Your task to perform on an android device: change text size in settings app Image 0: 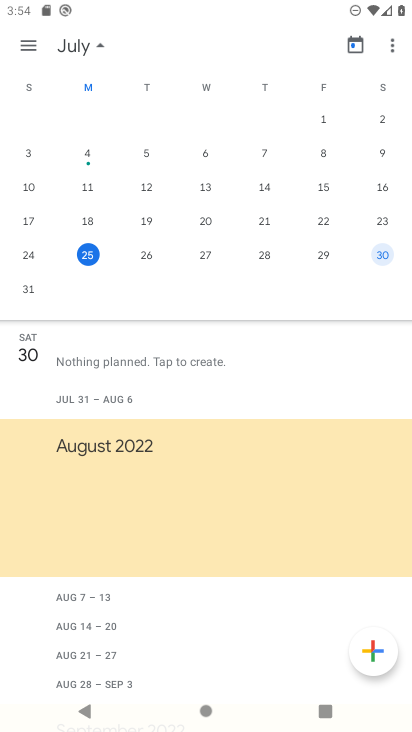
Step 0: press back button
Your task to perform on an android device: change text size in settings app Image 1: 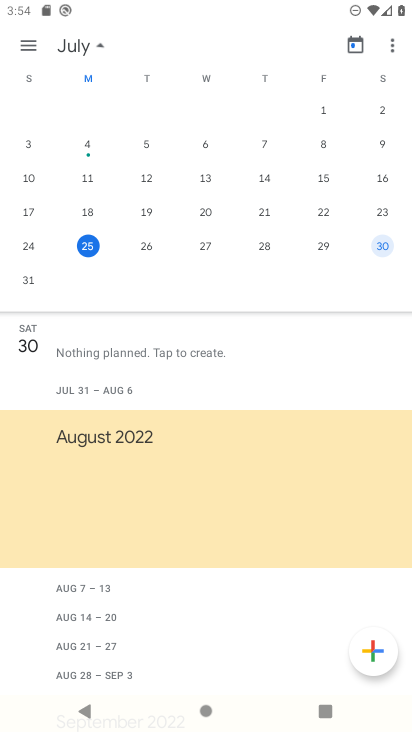
Step 1: press back button
Your task to perform on an android device: change text size in settings app Image 2: 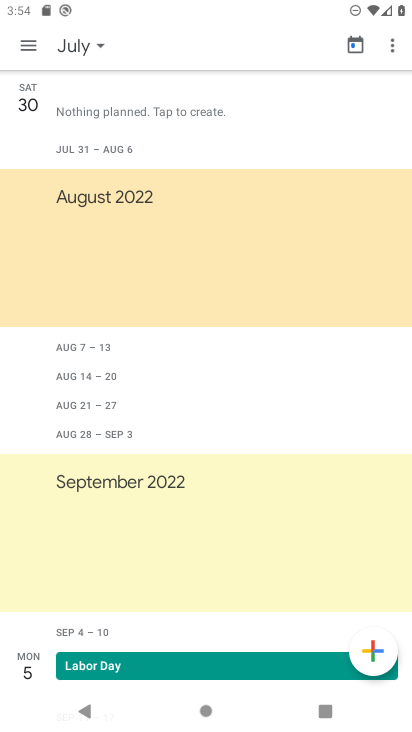
Step 2: press back button
Your task to perform on an android device: change text size in settings app Image 3: 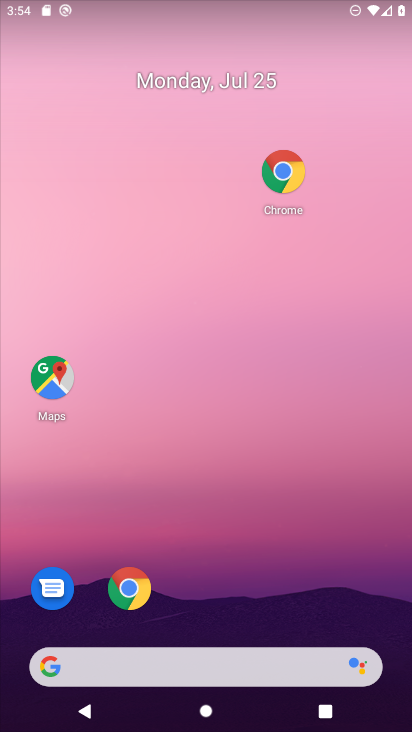
Step 3: drag from (274, 558) to (203, 162)
Your task to perform on an android device: change text size in settings app Image 4: 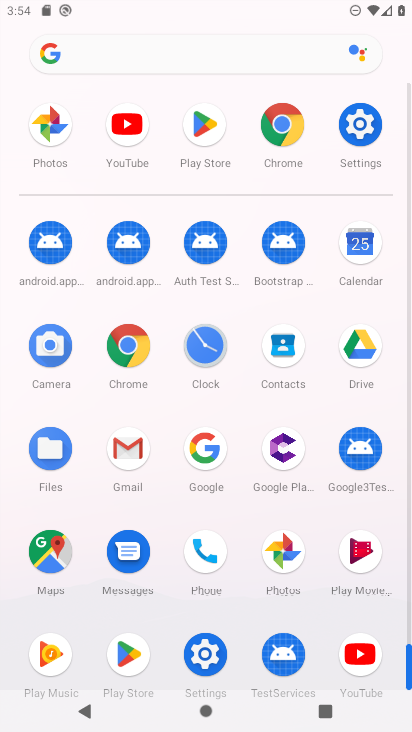
Step 4: click (353, 131)
Your task to perform on an android device: change text size in settings app Image 5: 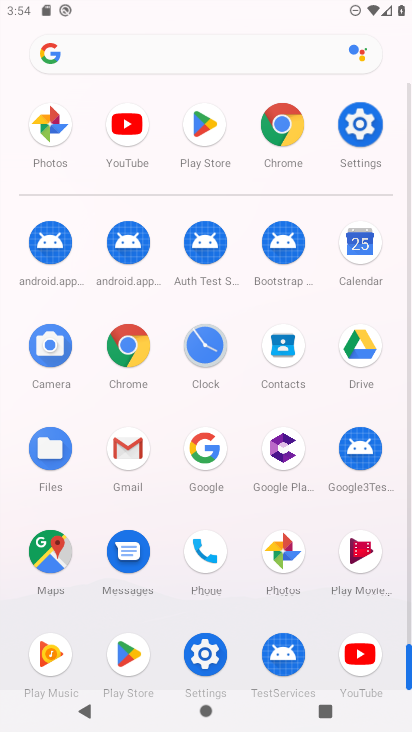
Step 5: click (356, 128)
Your task to perform on an android device: change text size in settings app Image 6: 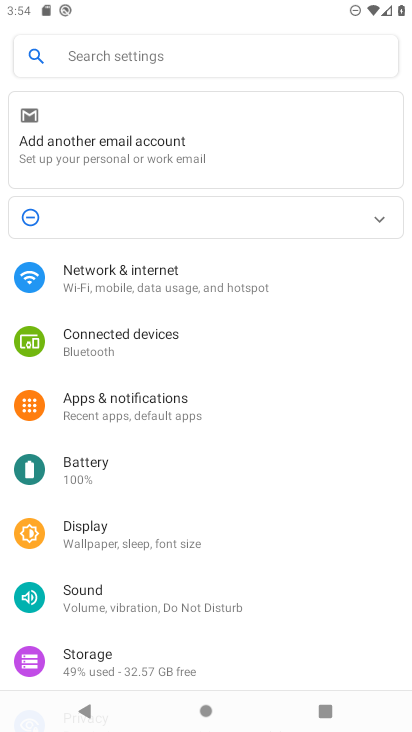
Step 6: click (106, 512)
Your task to perform on an android device: change text size in settings app Image 7: 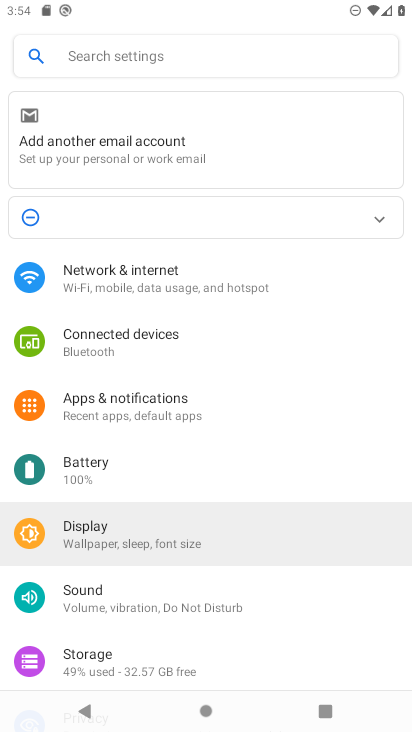
Step 7: click (110, 529)
Your task to perform on an android device: change text size in settings app Image 8: 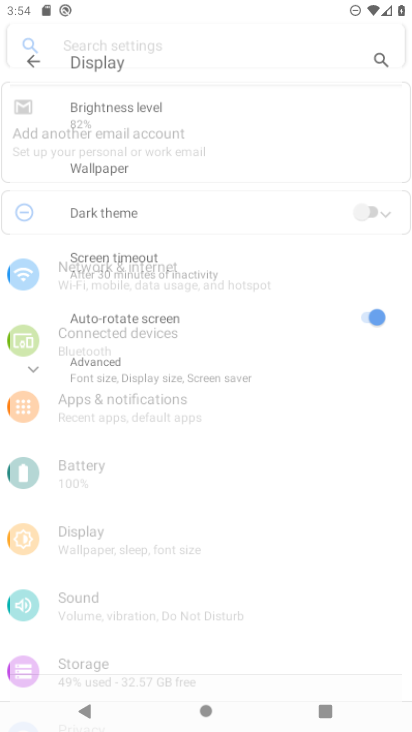
Step 8: click (110, 532)
Your task to perform on an android device: change text size in settings app Image 9: 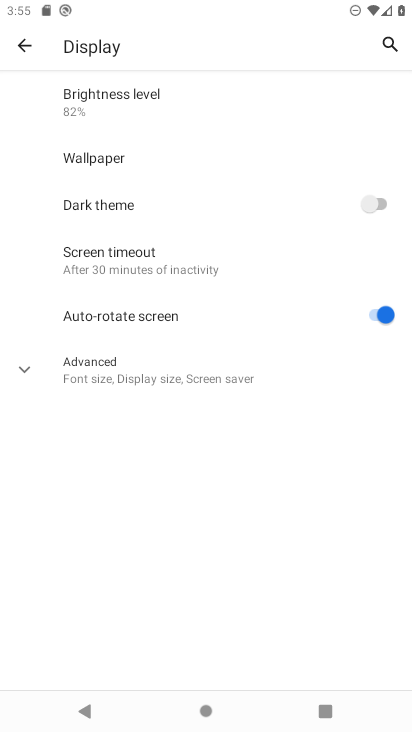
Step 9: click (125, 379)
Your task to perform on an android device: change text size in settings app Image 10: 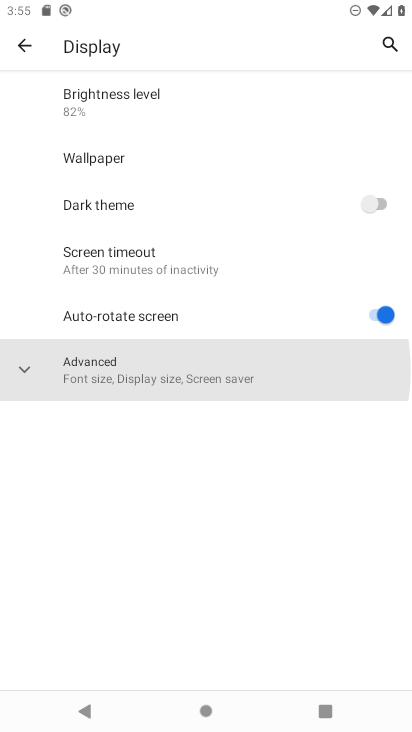
Step 10: click (125, 378)
Your task to perform on an android device: change text size in settings app Image 11: 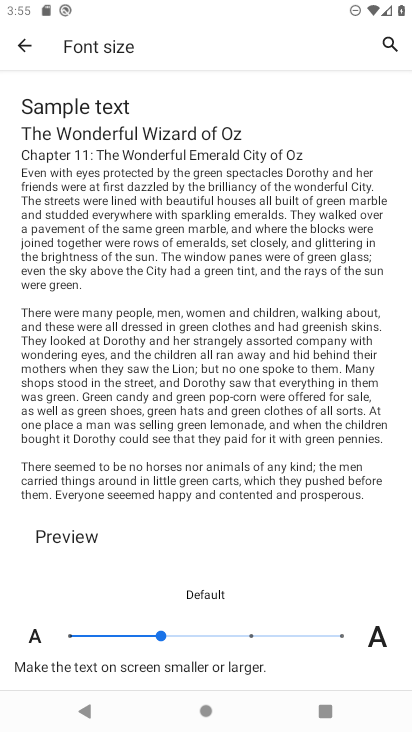
Step 11: click (326, 629)
Your task to perform on an android device: change text size in settings app Image 12: 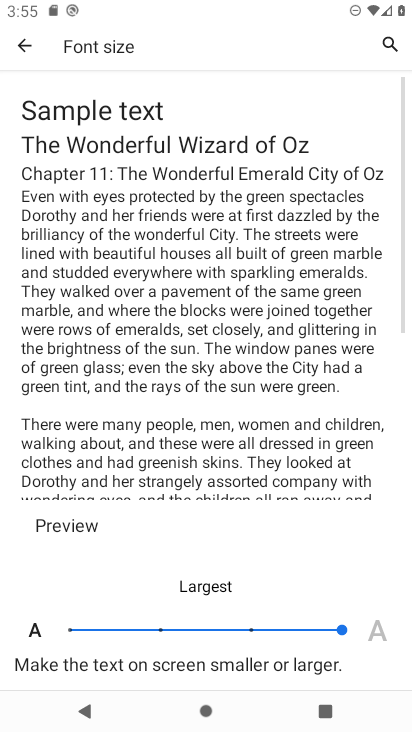
Step 12: task complete